Your task to perform on an android device: move an email to a new category in the gmail app Image 0: 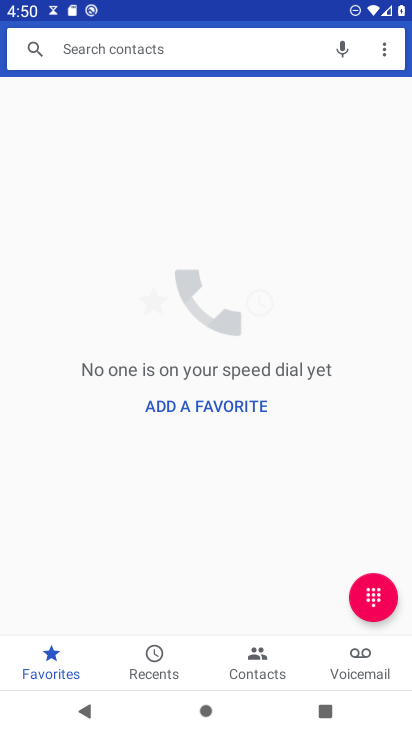
Step 0: drag from (291, 705) to (285, 211)
Your task to perform on an android device: move an email to a new category in the gmail app Image 1: 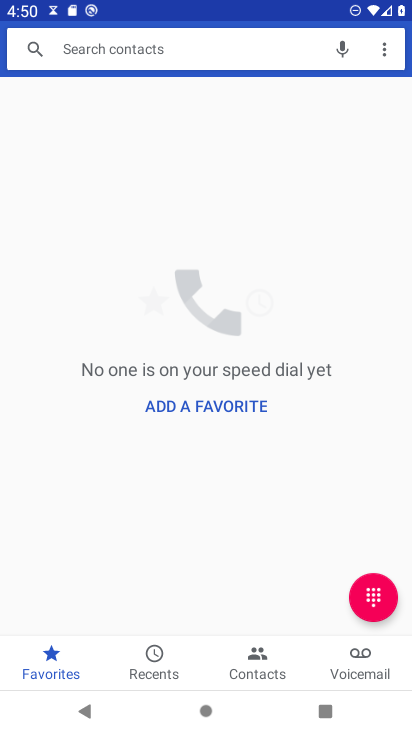
Step 1: press back button
Your task to perform on an android device: move an email to a new category in the gmail app Image 2: 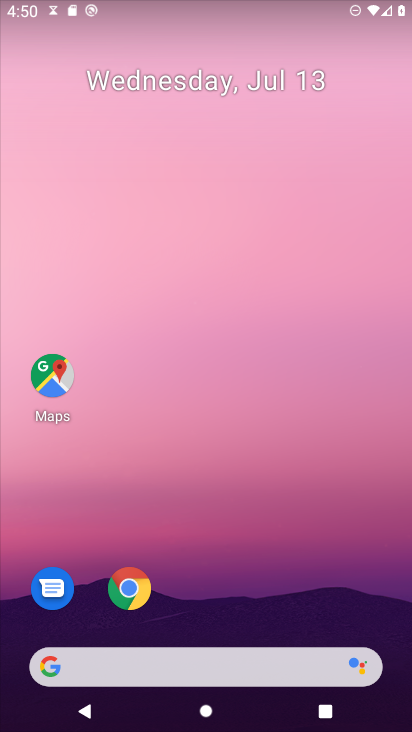
Step 2: drag from (266, 690) to (205, 2)
Your task to perform on an android device: move an email to a new category in the gmail app Image 3: 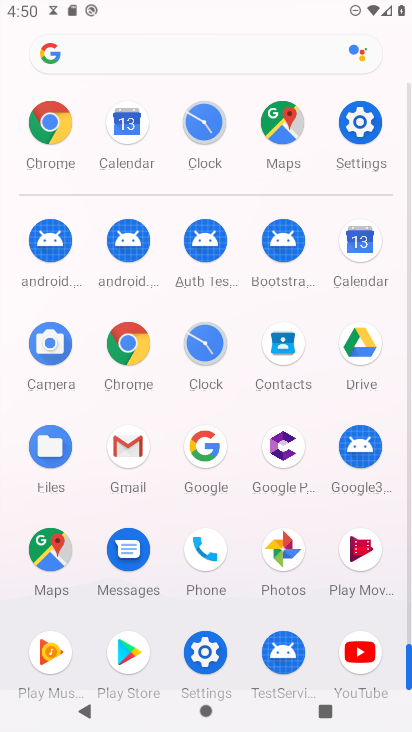
Step 3: click (122, 447)
Your task to perform on an android device: move an email to a new category in the gmail app Image 4: 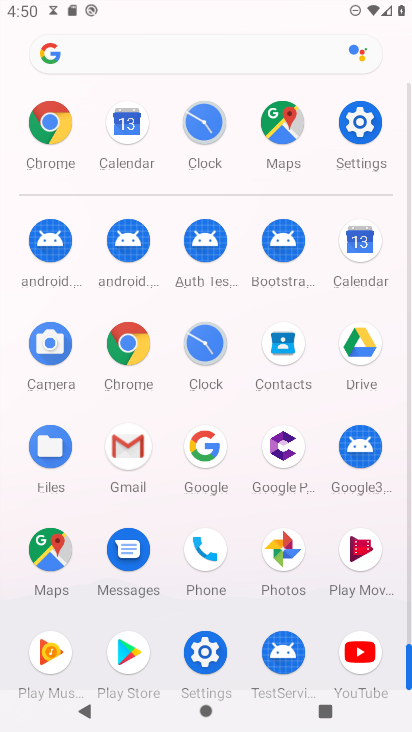
Step 4: click (121, 435)
Your task to perform on an android device: move an email to a new category in the gmail app Image 5: 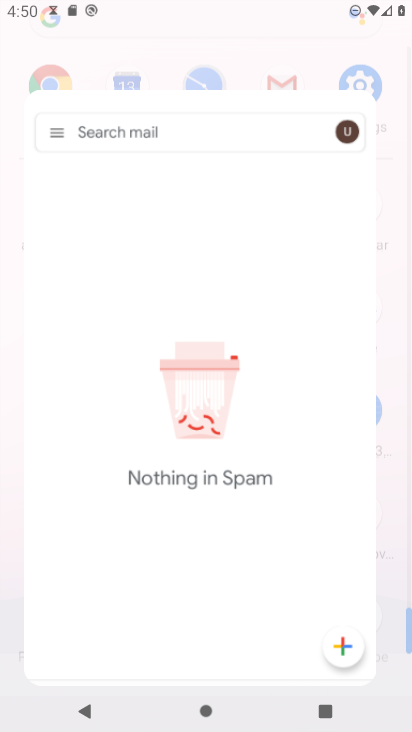
Step 5: click (128, 437)
Your task to perform on an android device: move an email to a new category in the gmail app Image 6: 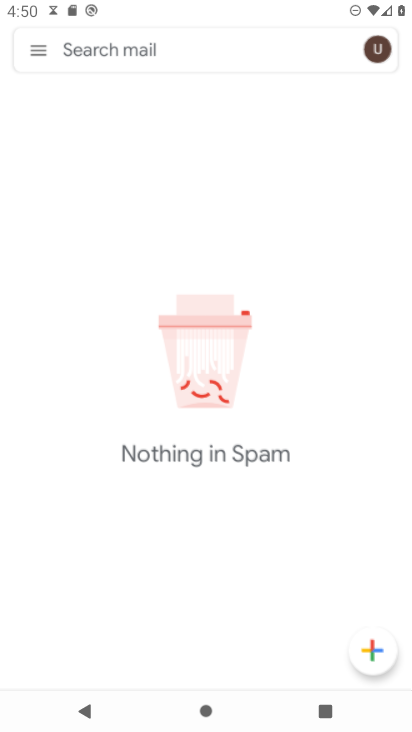
Step 6: click (128, 437)
Your task to perform on an android device: move an email to a new category in the gmail app Image 7: 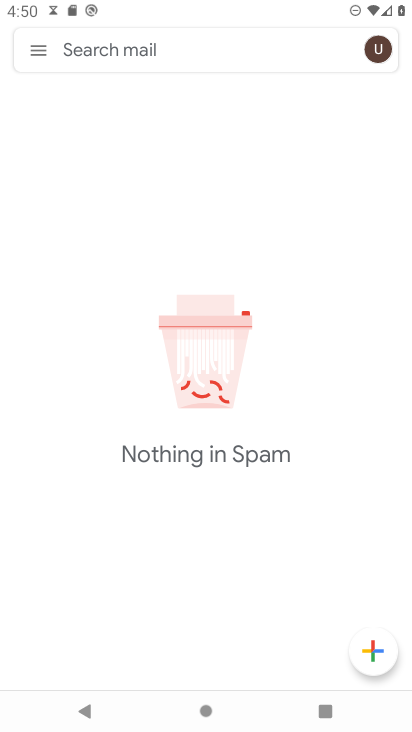
Step 7: click (48, 45)
Your task to perform on an android device: move an email to a new category in the gmail app Image 8: 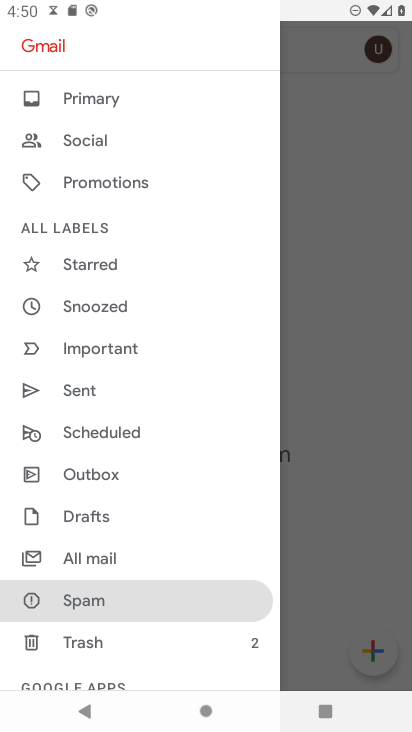
Step 8: click (82, 567)
Your task to perform on an android device: move an email to a new category in the gmail app Image 9: 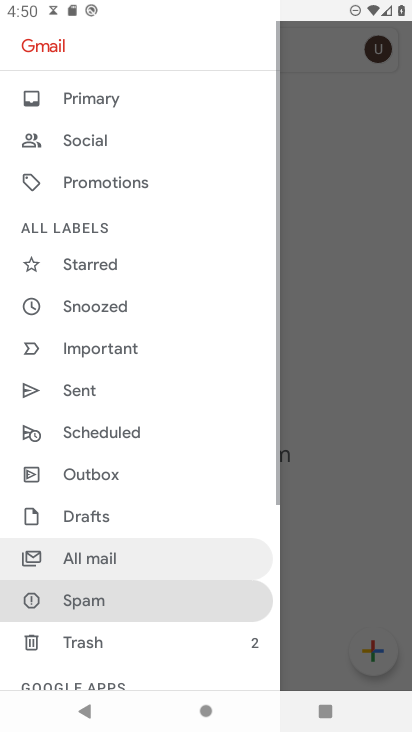
Step 9: click (83, 563)
Your task to perform on an android device: move an email to a new category in the gmail app Image 10: 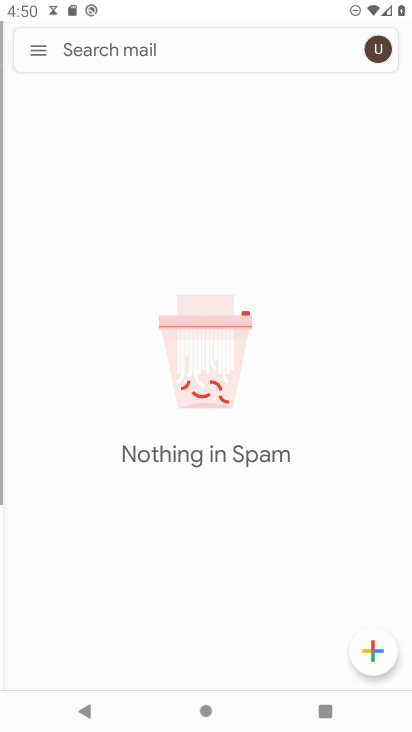
Step 10: click (87, 559)
Your task to perform on an android device: move an email to a new category in the gmail app Image 11: 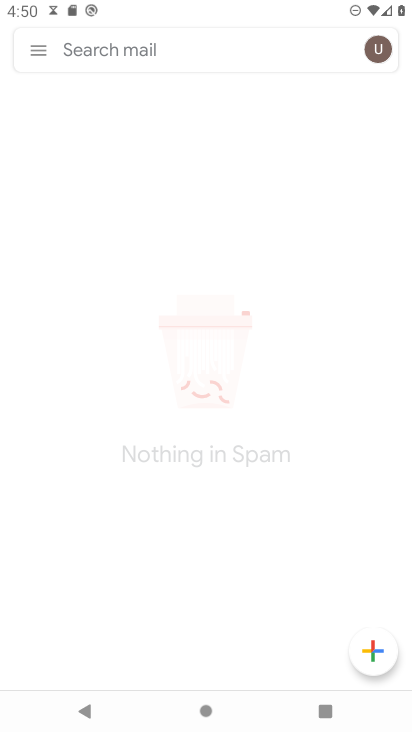
Step 11: click (87, 559)
Your task to perform on an android device: move an email to a new category in the gmail app Image 12: 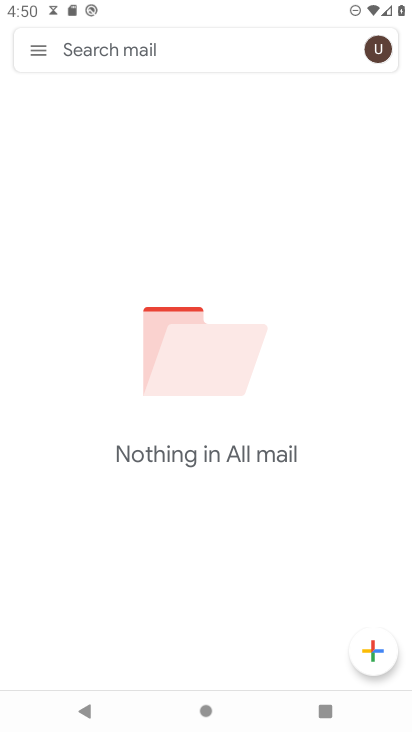
Step 12: task complete